Your task to perform on an android device: turn vacation reply on in the gmail app Image 0: 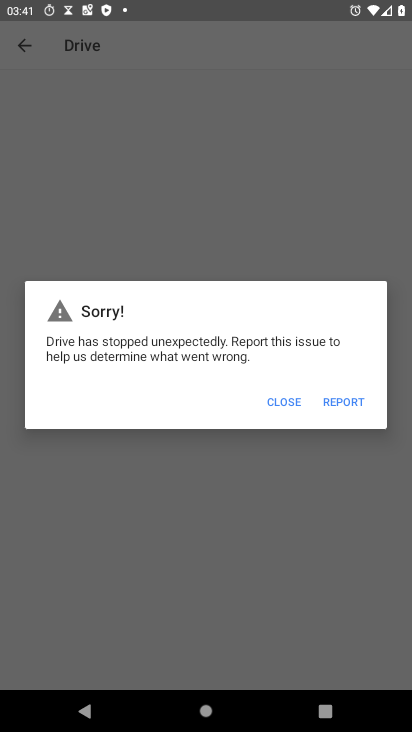
Step 0: press home button
Your task to perform on an android device: turn vacation reply on in the gmail app Image 1: 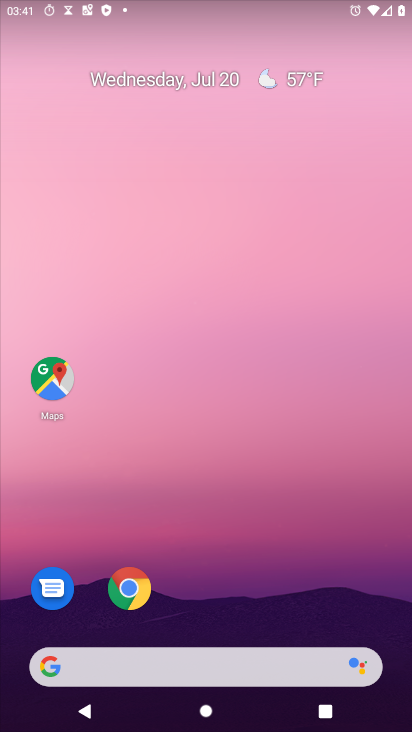
Step 1: drag from (287, 674) to (339, 56)
Your task to perform on an android device: turn vacation reply on in the gmail app Image 2: 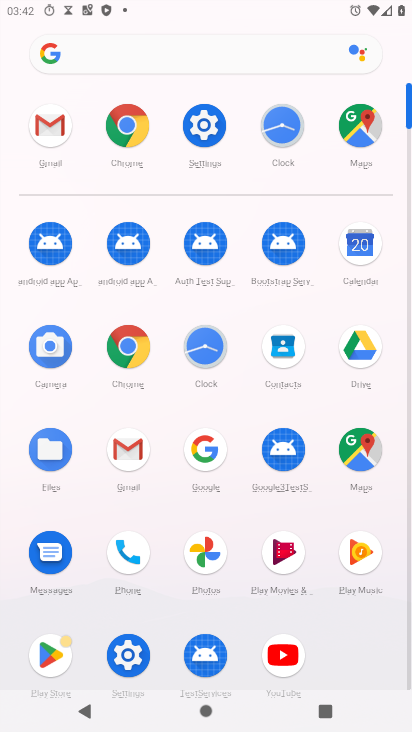
Step 2: click (136, 446)
Your task to perform on an android device: turn vacation reply on in the gmail app Image 3: 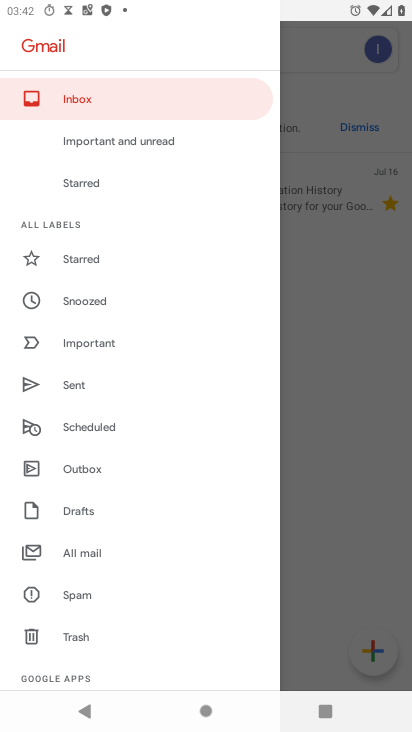
Step 3: drag from (78, 606) to (100, 142)
Your task to perform on an android device: turn vacation reply on in the gmail app Image 4: 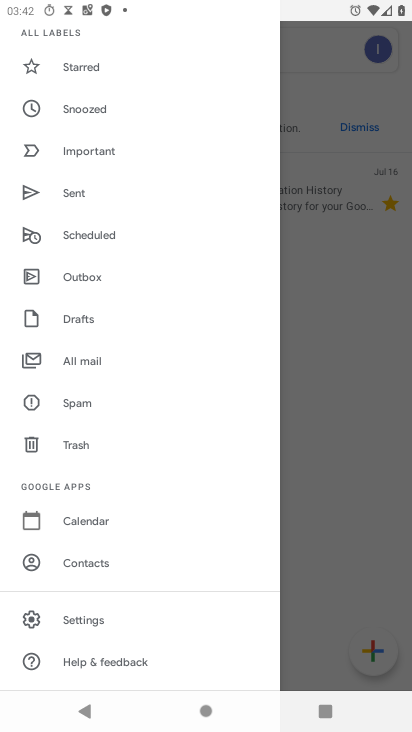
Step 4: click (103, 625)
Your task to perform on an android device: turn vacation reply on in the gmail app Image 5: 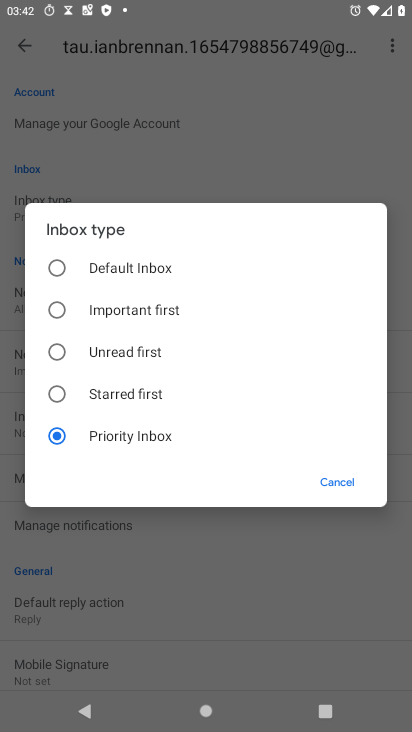
Step 5: click (326, 479)
Your task to perform on an android device: turn vacation reply on in the gmail app Image 6: 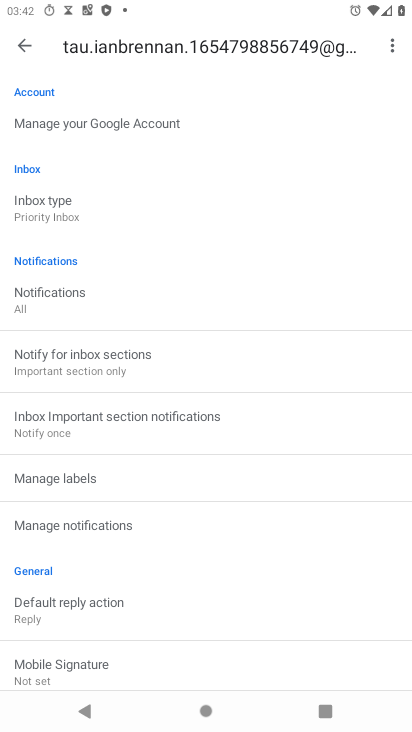
Step 6: drag from (226, 629) to (265, 96)
Your task to perform on an android device: turn vacation reply on in the gmail app Image 7: 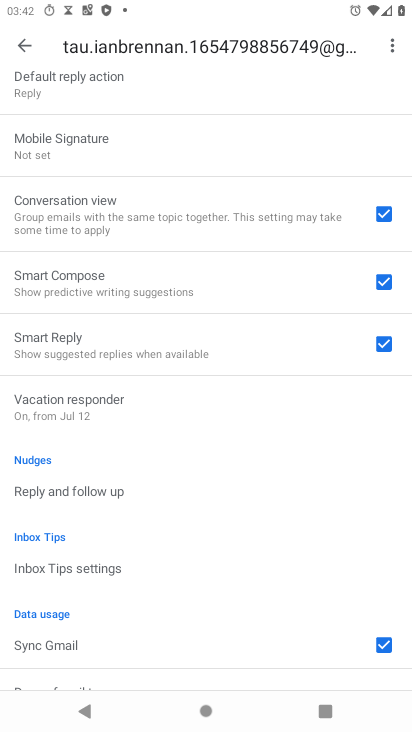
Step 7: click (139, 399)
Your task to perform on an android device: turn vacation reply on in the gmail app Image 8: 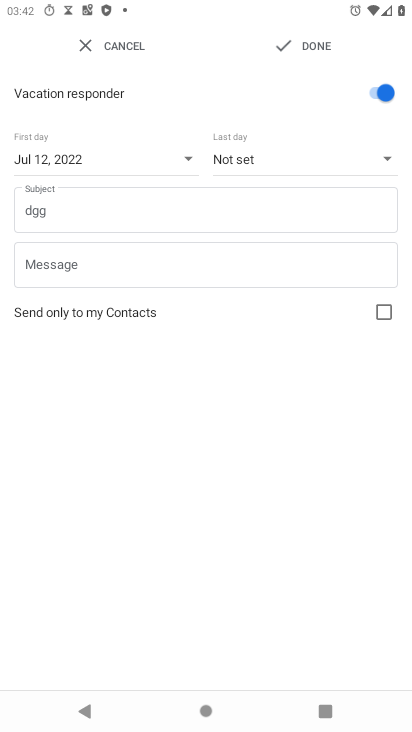
Step 8: click (299, 42)
Your task to perform on an android device: turn vacation reply on in the gmail app Image 9: 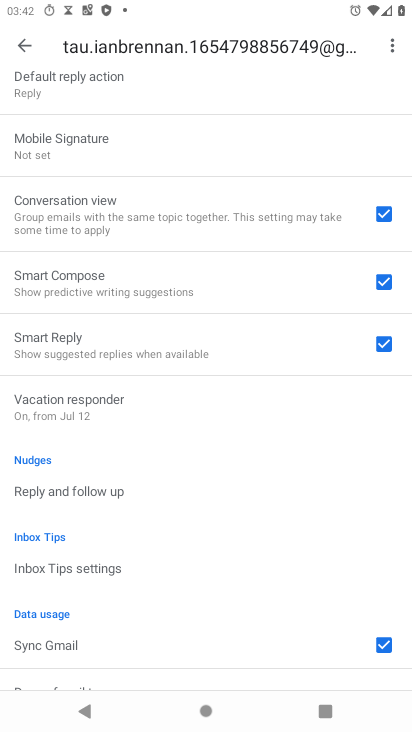
Step 9: task complete